Your task to perform on an android device: Check the news Image 0: 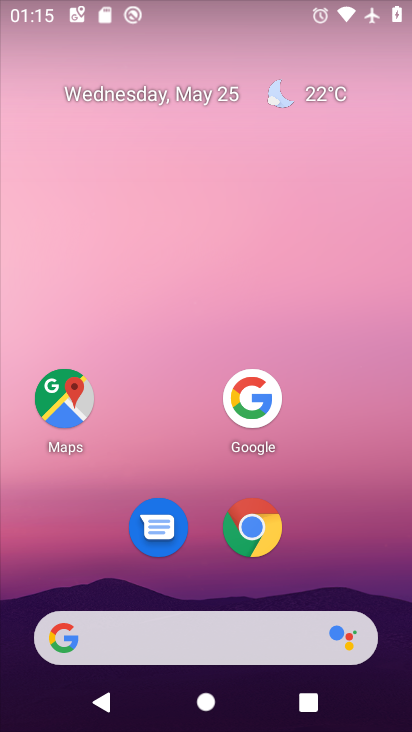
Step 0: press home button
Your task to perform on an android device: Check the news Image 1: 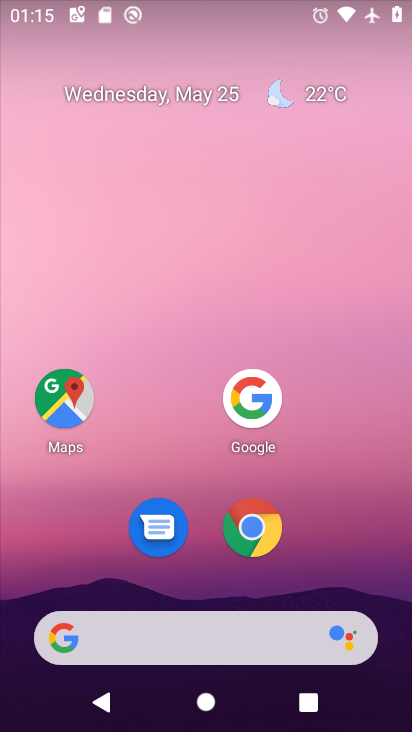
Step 1: click (70, 638)
Your task to perform on an android device: Check the news Image 2: 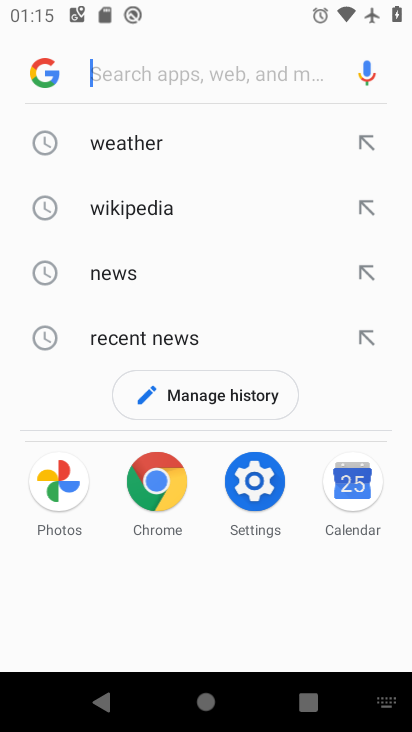
Step 2: click (119, 278)
Your task to perform on an android device: Check the news Image 3: 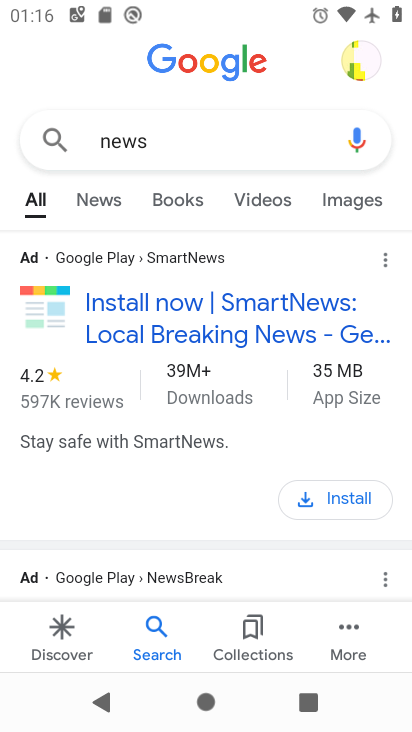
Step 3: click (101, 212)
Your task to perform on an android device: Check the news Image 4: 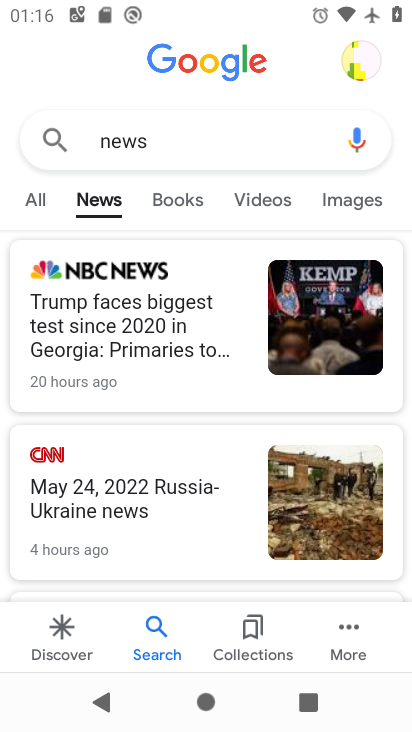
Step 4: task complete